Your task to perform on an android device: open device folders in google photos Image 0: 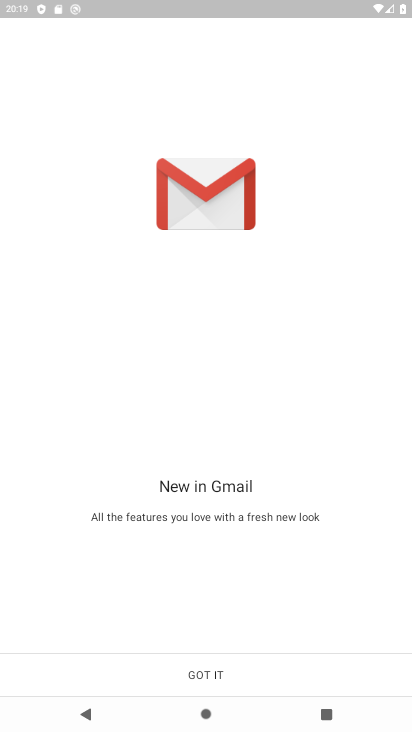
Step 0: press home button
Your task to perform on an android device: open device folders in google photos Image 1: 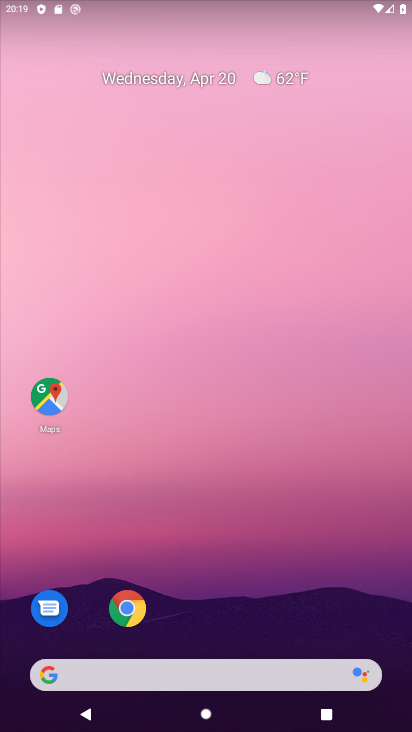
Step 1: drag from (285, 598) to (273, 20)
Your task to perform on an android device: open device folders in google photos Image 2: 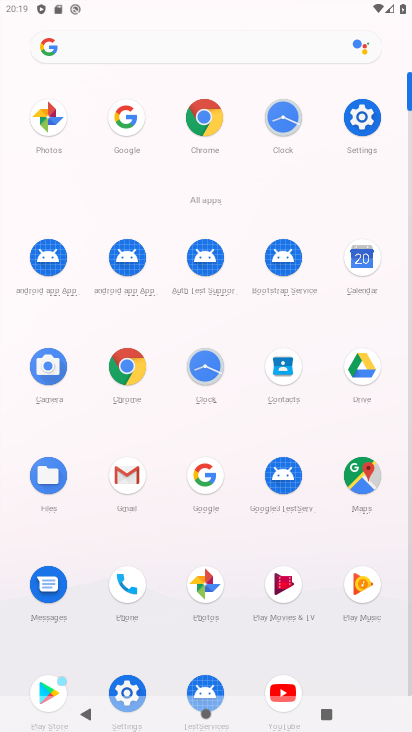
Step 2: click (211, 602)
Your task to perform on an android device: open device folders in google photos Image 3: 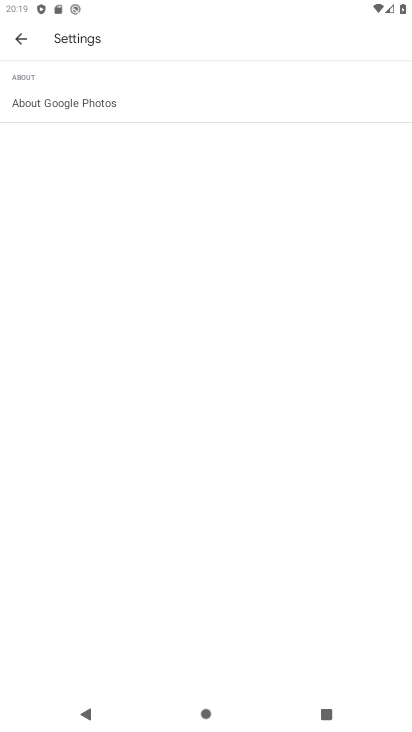
Step 3: press back button
Your task to perform on an android device: open device folders in google photos Image 4: 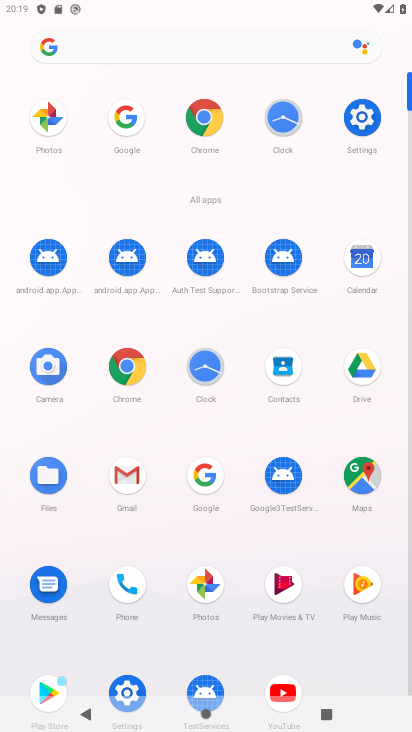
Step 4: click (41, 120)
Your task to perform on an android device: open device folders in google photos Image 5: 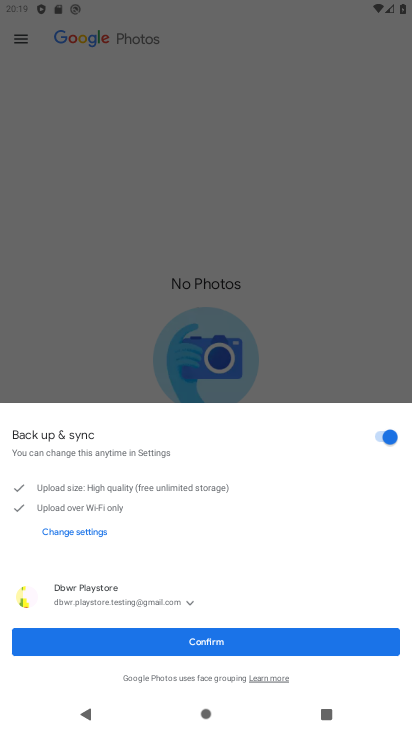
Step 5: click (249, 623)
Your task to perform on an android device: open device folders in google photos Image 6: 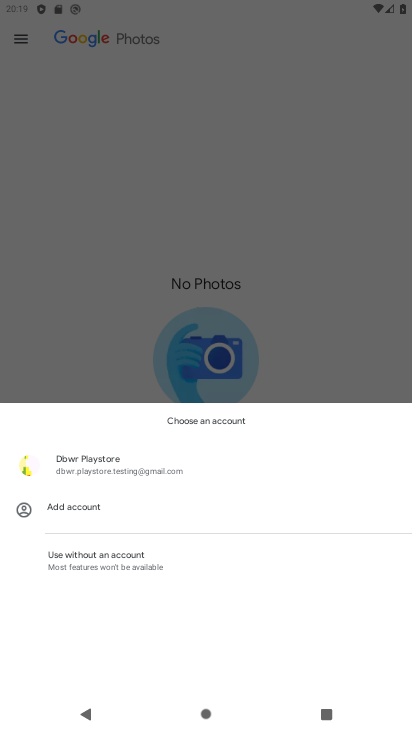
Step 6: press back button
Your task to perform on an android device: open device folders in google photos Image 7: 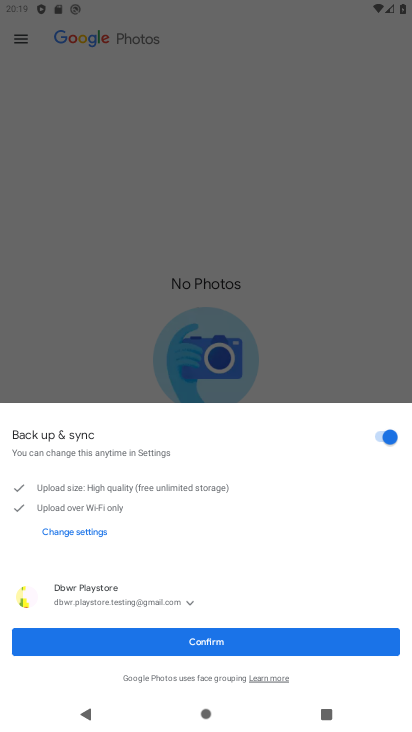
Step 7: click (215, 642)
Your task to perform on an android device: open device folders in google photos Image 8: 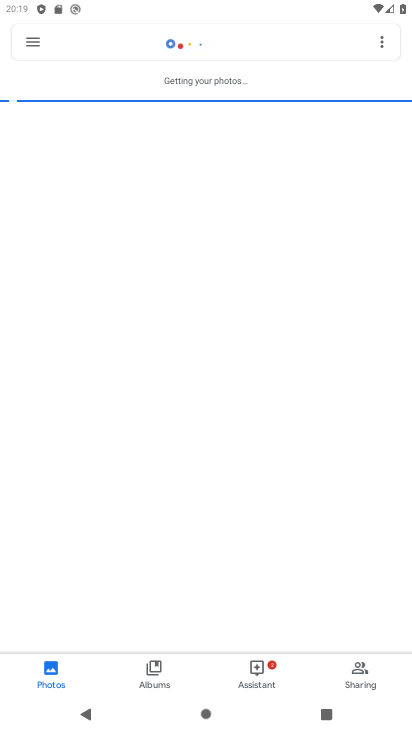
Step 8: click (141, 662)
Your task to perform on an android device: open device folders in google photos Image 9: 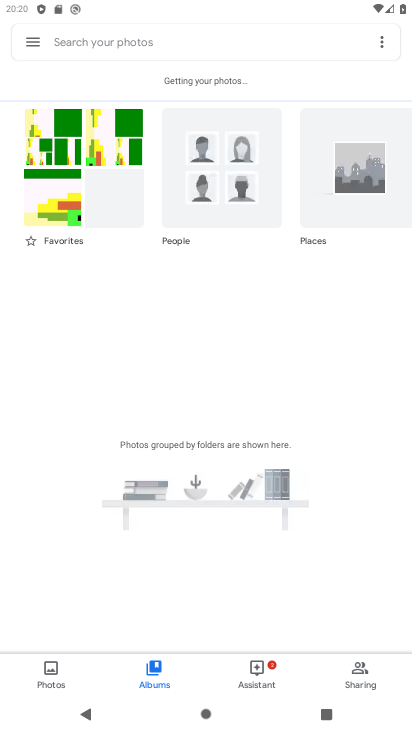
Step 9: task complete